Your task to perform on an android device: See recent photos Image 0: 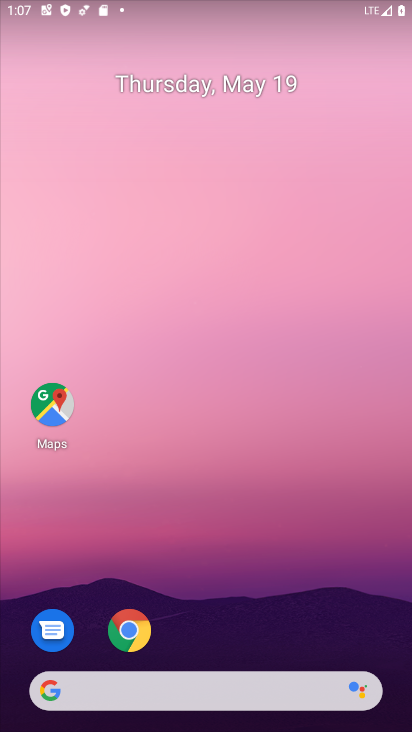
Step 0: drag from (213, 670) to (204, 100)
Your task to perform on an android device: See recent photos Image 1: 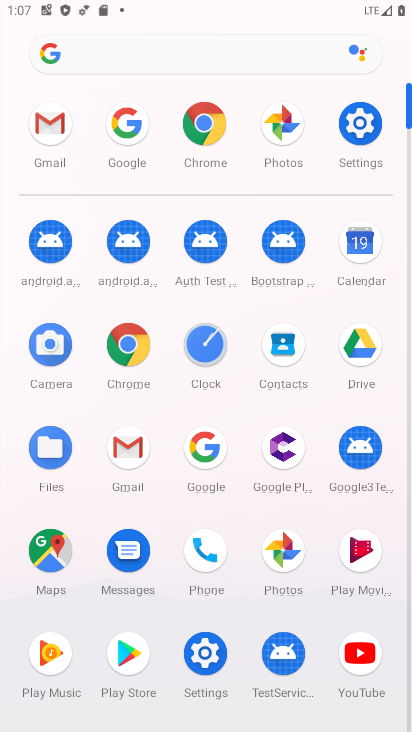
Step 1: click (280, 561)
Your task to perform on an android device: See recent photos Image 2: 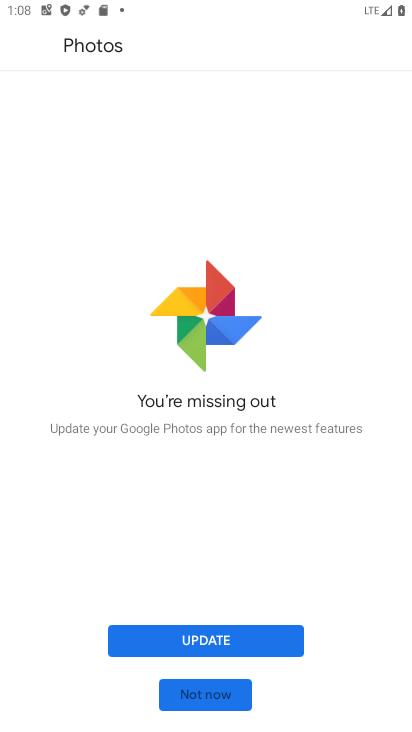
Step 2: click (198, 693)
Your task to perform on an android device: See recent photos Image 3: 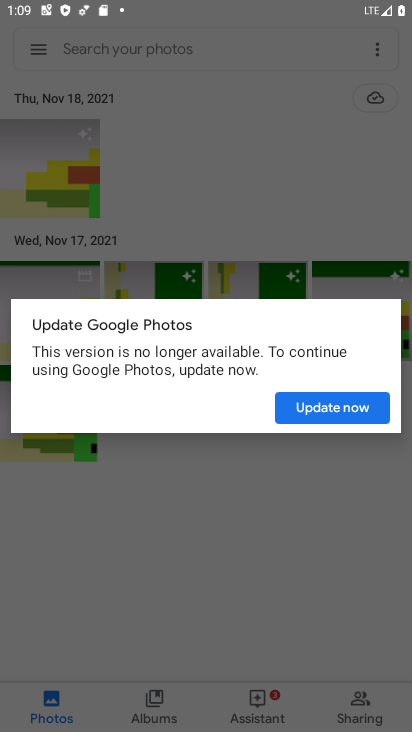
Step 3: click (317, 521)
Your task to perform on an android device: See recent photos Image 4: 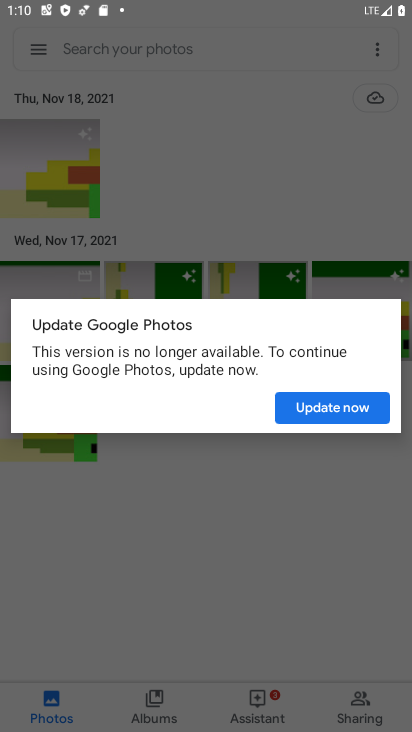
Step 4: click (310, 517)
Your task to perform on an android device: See recent photos Image 5: 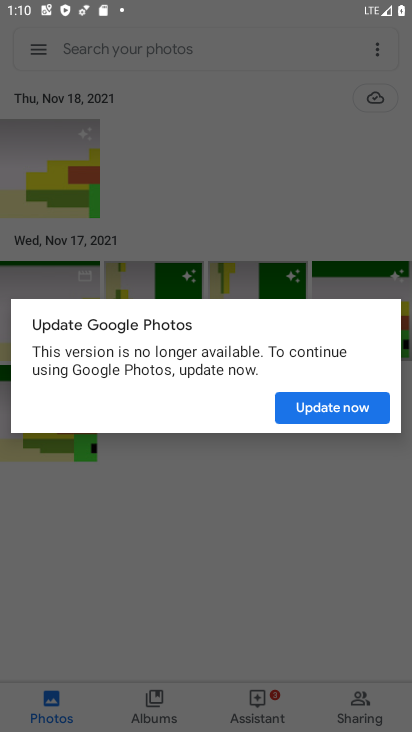
Step 5: press home button
Your task to perform on an android device: See recent photos Image 6: 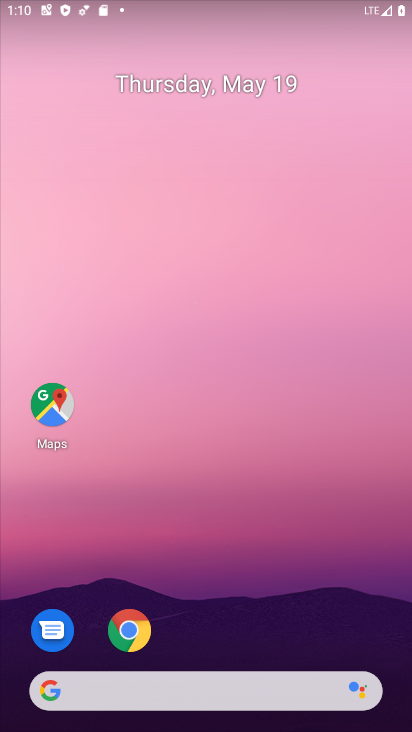
Step 6: drag from (221, 669) to (123, 1)
Your task to perform on an android device: See recent photos Image 7: 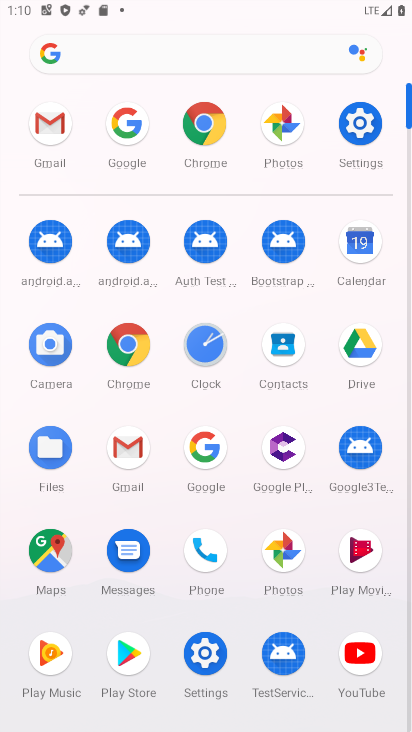
Step 7: click (290, 547)
Your task to perform on an android device: See recent photos Image 8: 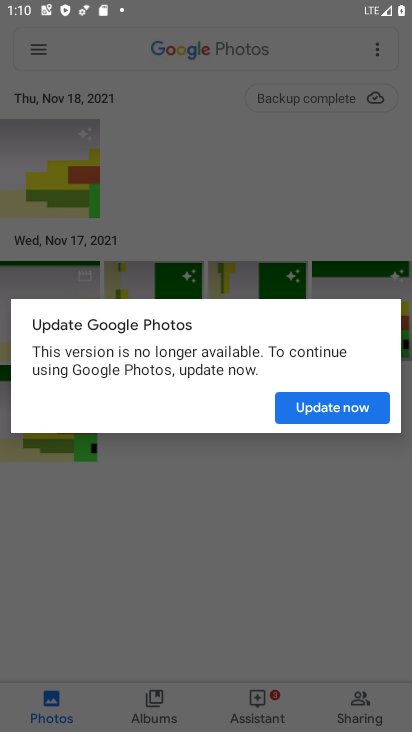
Step 8: click (313, 527)
Your task to perform on an android device: See recent photos Image 9: 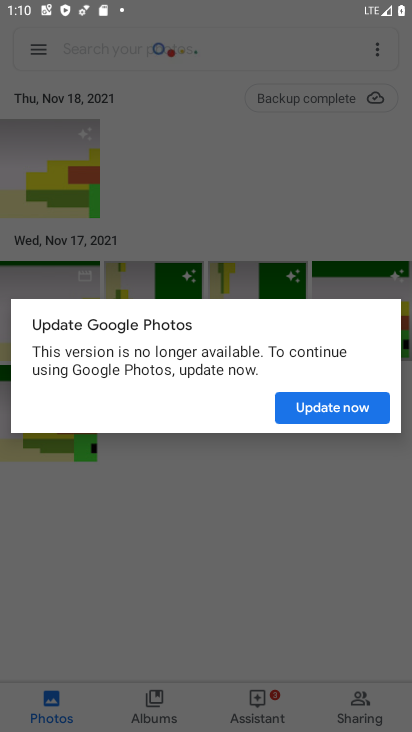
Step 9: click (324, 411)
Your task to perform on an android device: See recent photos Image 10: 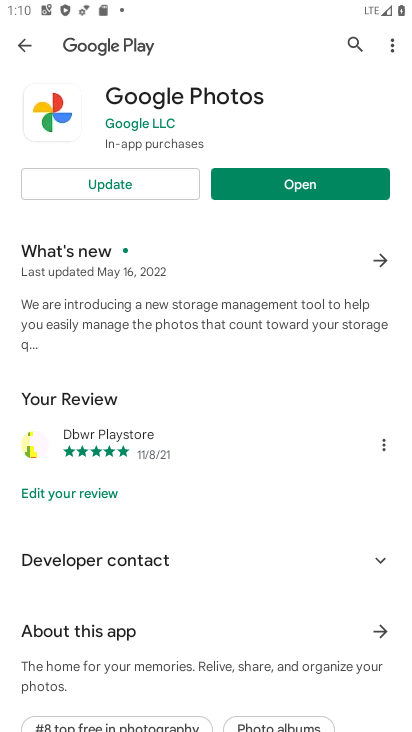
Step 10: click (276, 191)
Your task to perform on an android device: See recent photos Image 11: 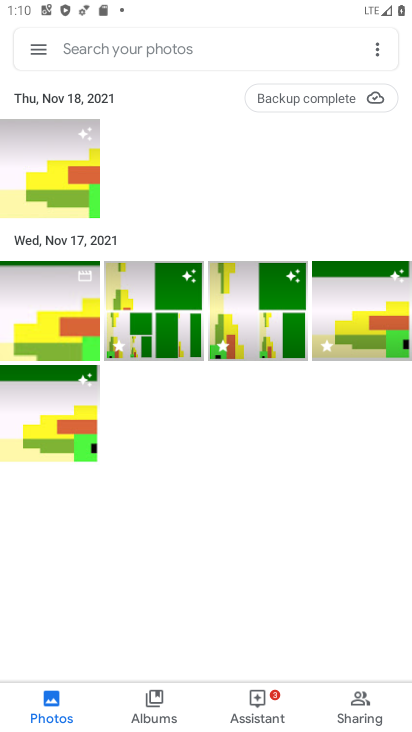
Step 11: task complete